Your task to perform on an android device: change the clock display to analog Image 0: 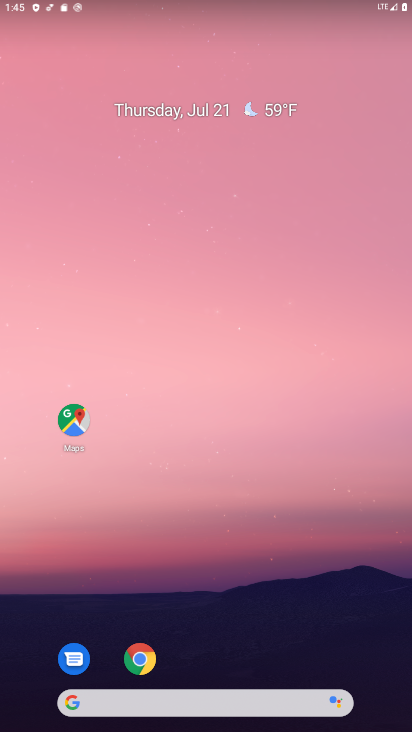
Step 0: drag from (225, 690) to (317, 256)
Your task to perform on an android device: change the clock display to analog Image 1: 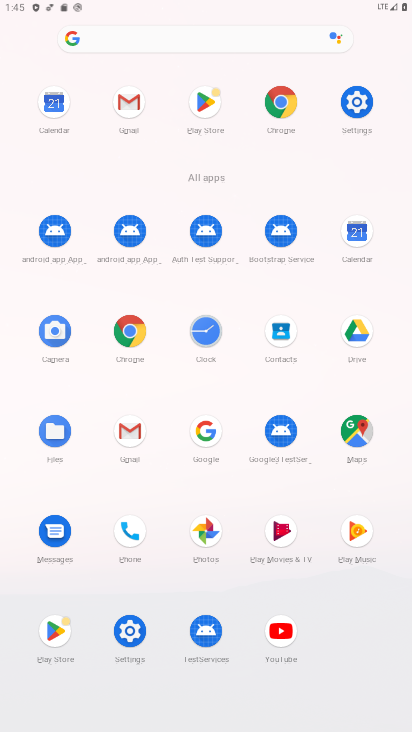
Step 1: click (204, 337)
Your task to perform on an android device: change the clock display to analog Image 2: 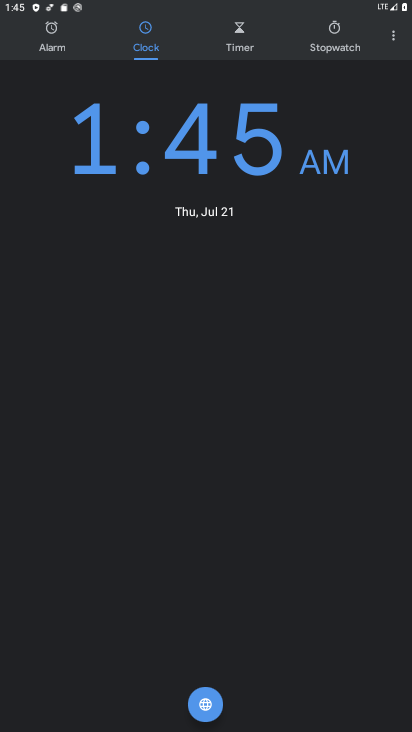
Step 2: click (395, 33)
Your task to perform on an android device: change the clock display to analog Image 3: 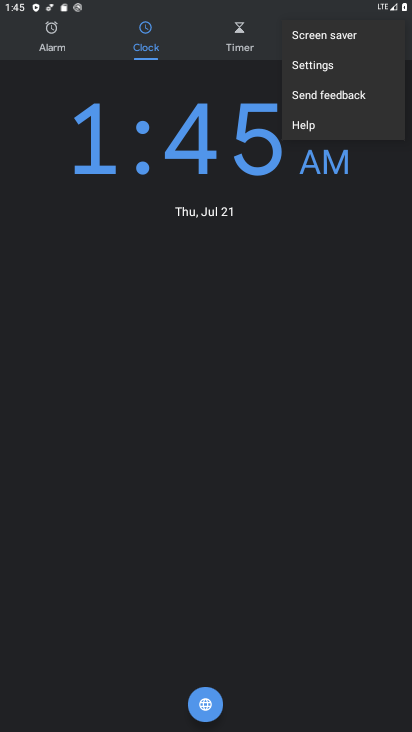
Step 3: click (310, 68)
Your task to perform on an android device: change the clock display to analog Image 4: 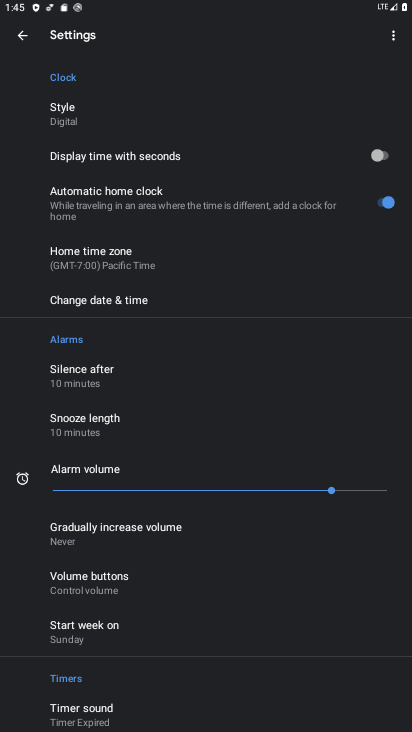
Step 4: click (109, 116)
Your task to perform on an android device: change the clock display to analog Image 5: 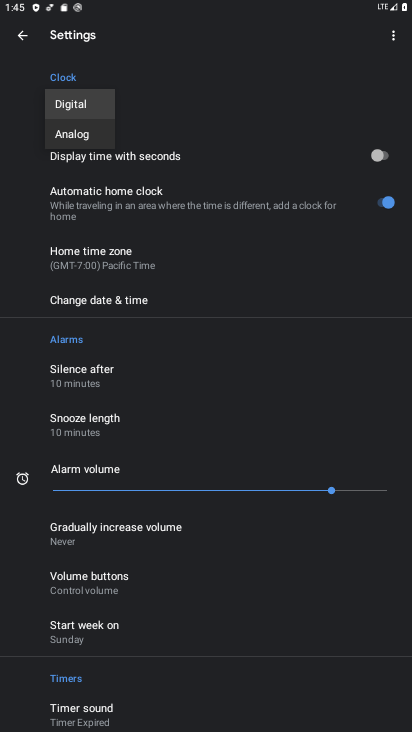
Step 5: click (102, 140)
Your task to perform on an android device: change the clock display to analog Image 6: 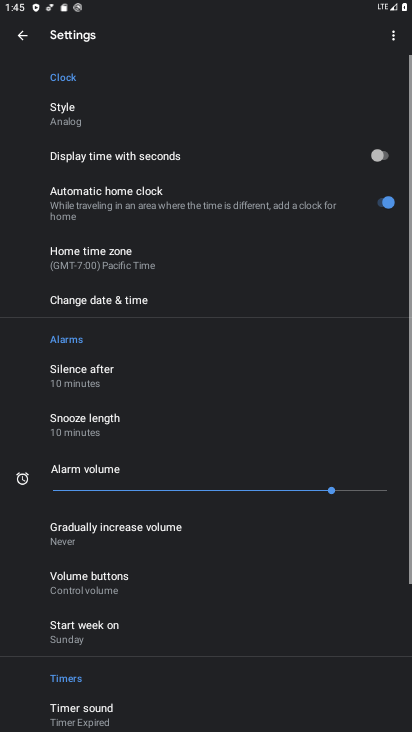
Step 6: task complete